Your task to perform on an android device: Open Google Maps and go to "Timeline" Image 0: 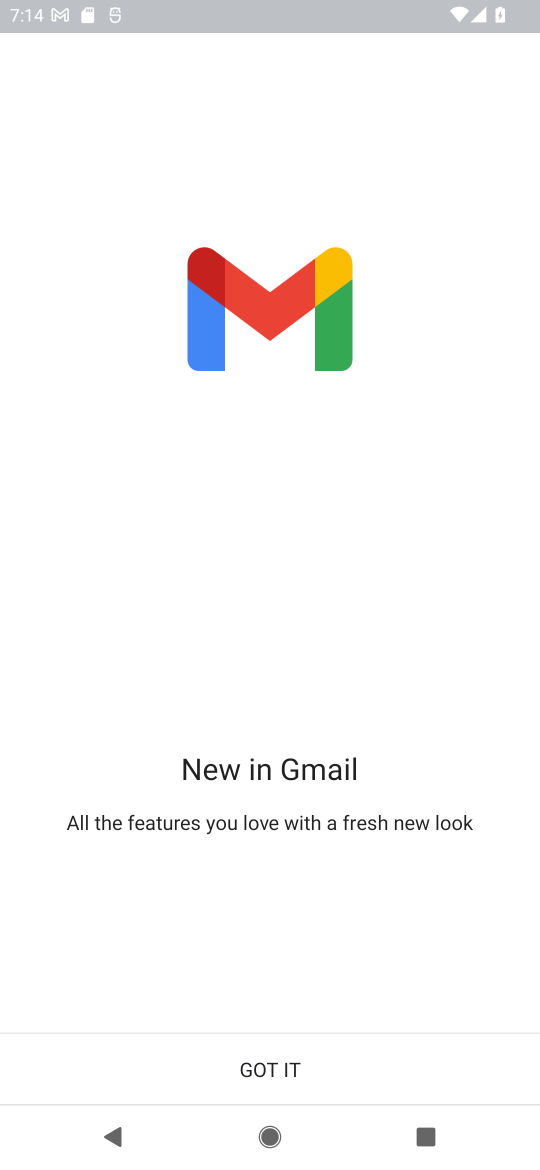
Step 0: press home button
Your task to perform on an android device: Open Google Maps and go to "Timeline" Image 1: 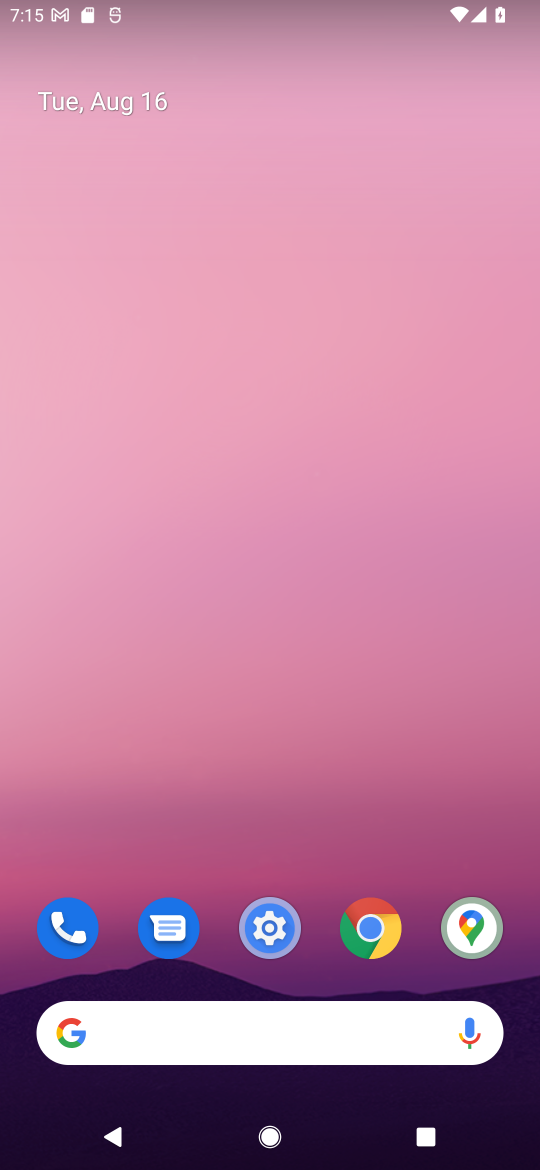
Step 1: drag from (264, 1017) to (498, 116)
Your task to perform on an android device: Open Google Maps and go to "Timeline" Image 2: 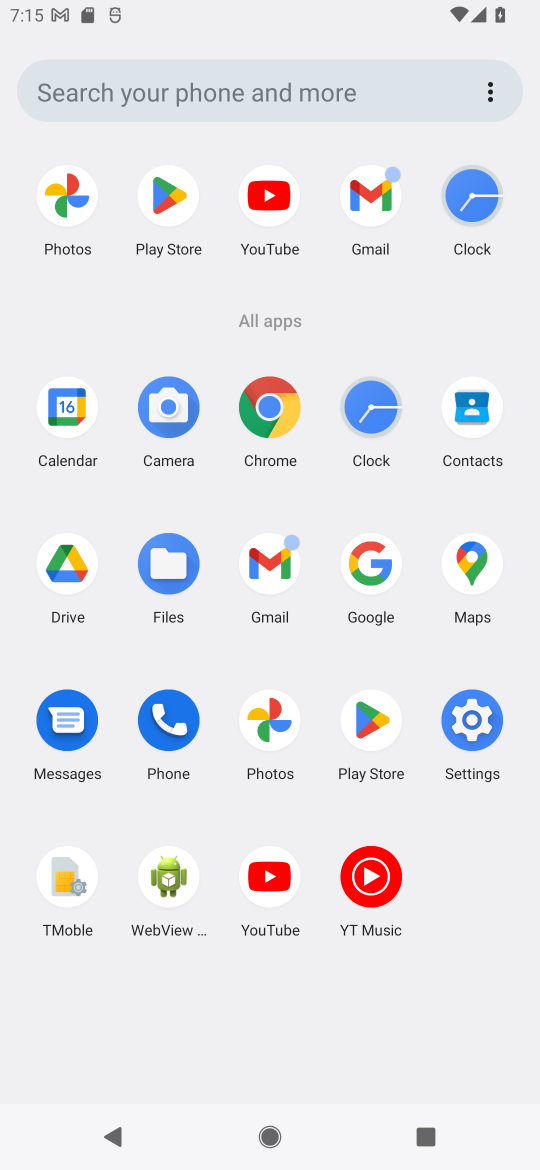
Step 2: click (489, 559)
Your task to perform on an android device: Open Google Maps and go to "Timeline" Image 3: 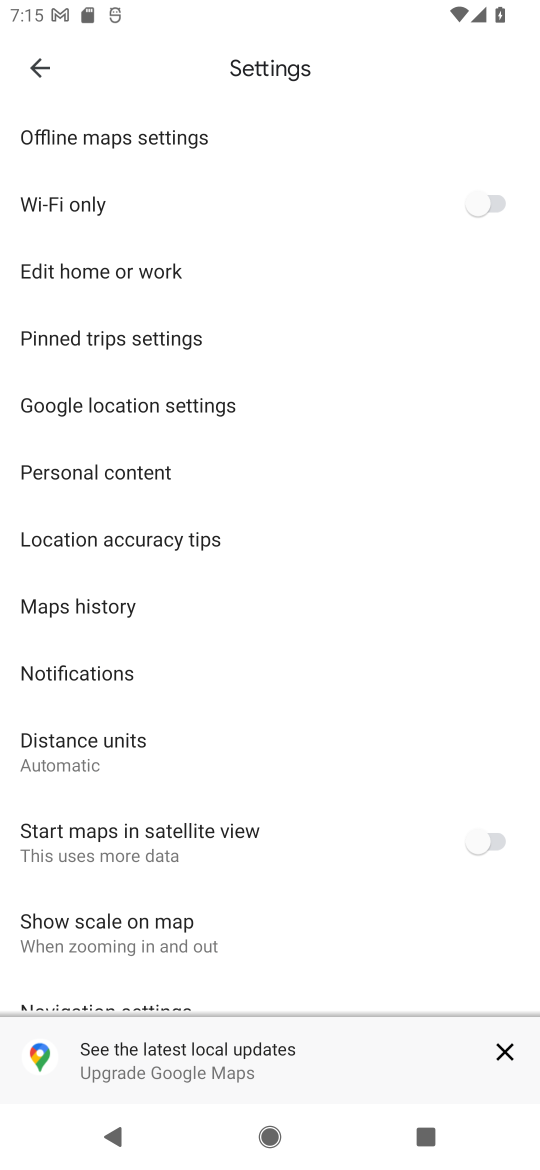
Step 3: task complete